Your task to perform on an android device: toggle airplane mode Image 0: 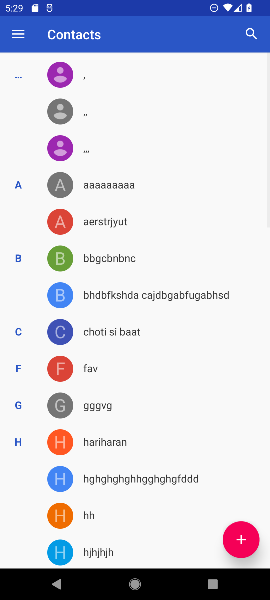
Step 0: press home button
Your task to perform on an android device: toggle airplane mode Image 1: 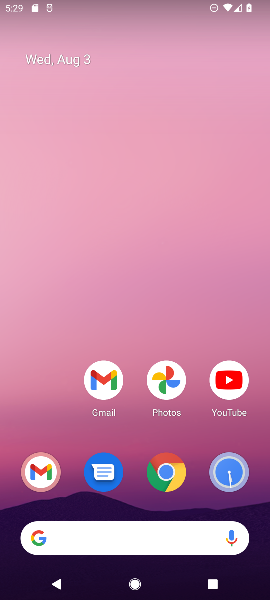
Step 1: drag from (236, 506) to (95, 46)
Your task to perform on an android device: toggle airplane mode Image 2: 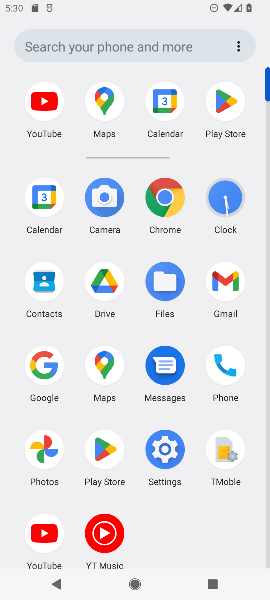
Step 2: drag from (152, 13) to (217, 472)
Your task to perform on an android device: toggle airplane mode Image 3: 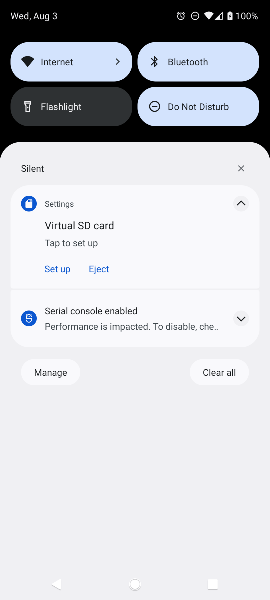
Step 3: drag from (135, 132) to (150, 526)
Your task to perform on an android device: toggle airplane mode Image 4: 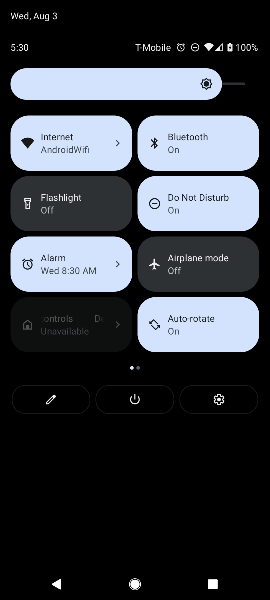
Step 4: click (180, 257)
Your task to perform on an android device: toggle airplane mode Image 5: 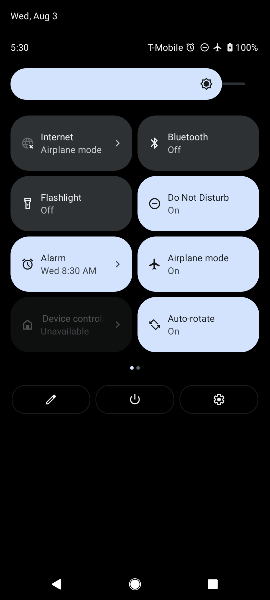
Step 5: task complete